Your task to perform on an android device: Open Yahoo.com Image 0: 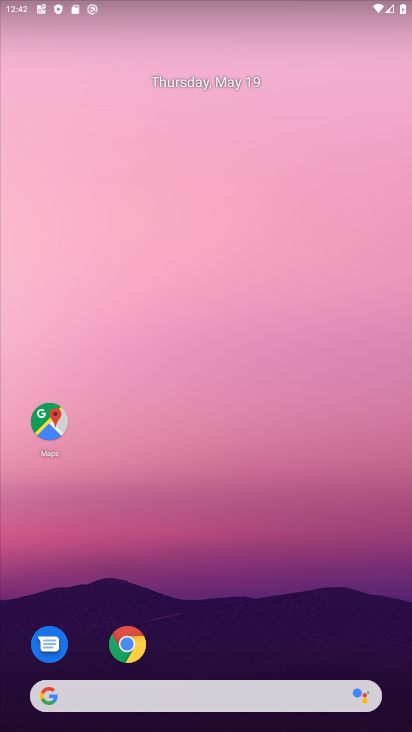
Step 0: drag from (298, 632) to (315, 188)
Your task to perform on an android device: Open Yahoo.com Image 1: 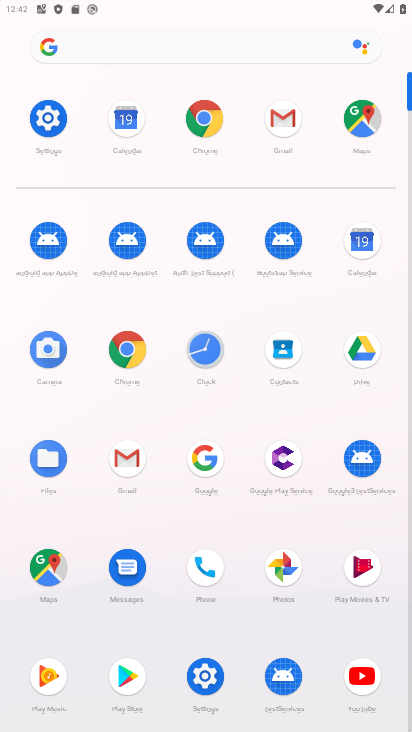
Step 1: click (132, 352)
Your task to perform on an android device: Open Yahoo.com Image 2: 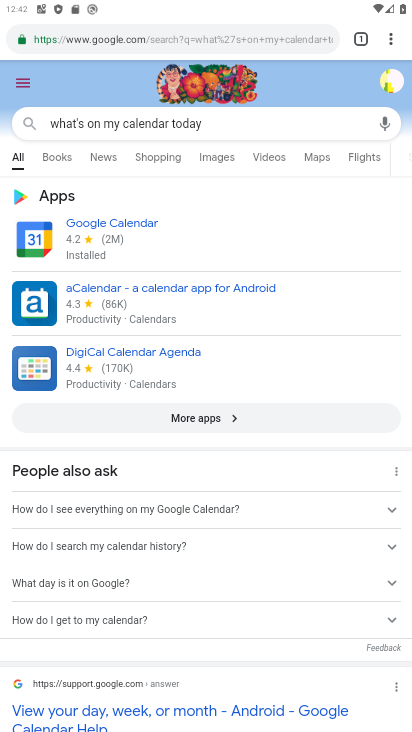
Step 2: click (219, 39)
Your task to perform on an android device: Open Yahoo.com Image 3: 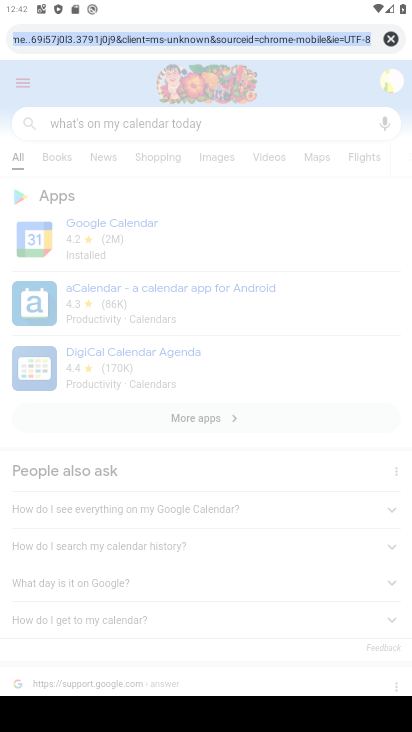
Step 3: click (388, 44)
Your task to perform on an android device: Open Yahoo.com Image 4: 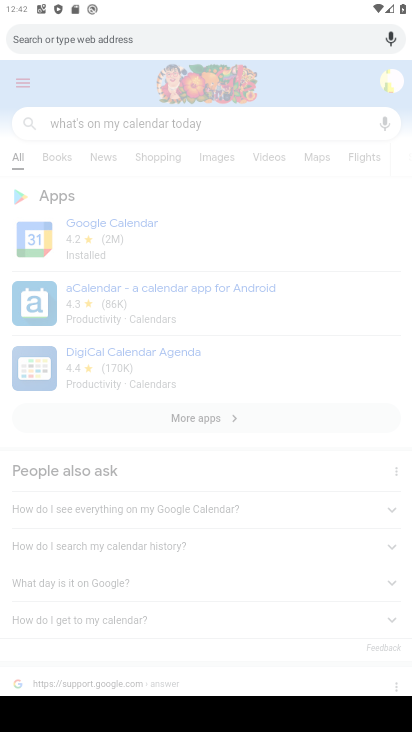
Step 4: type "yahoo.com"
Your task to perform on an android device: Open Yahoo.com Image 5: 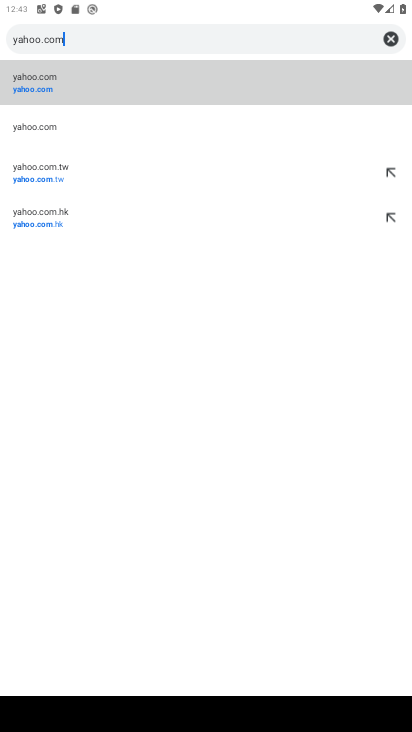
Step 5: click (114, 80)
Your task to perform on an android device: Open Yahoo.com Image 6: 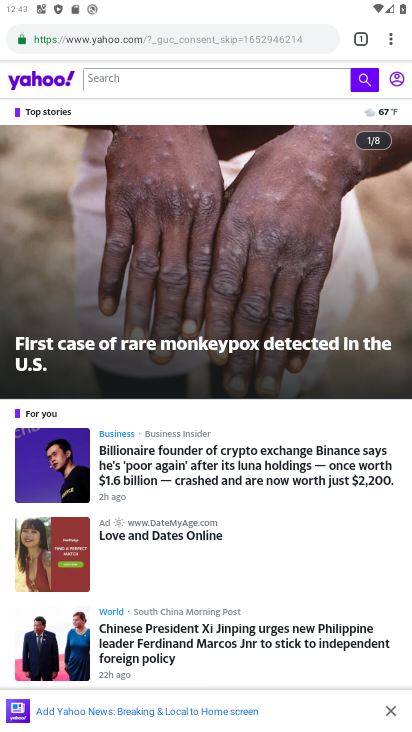
Step 6: task complete